Your task to perform on an android device: Open calendar and show me the fourth week of next month Image 0: 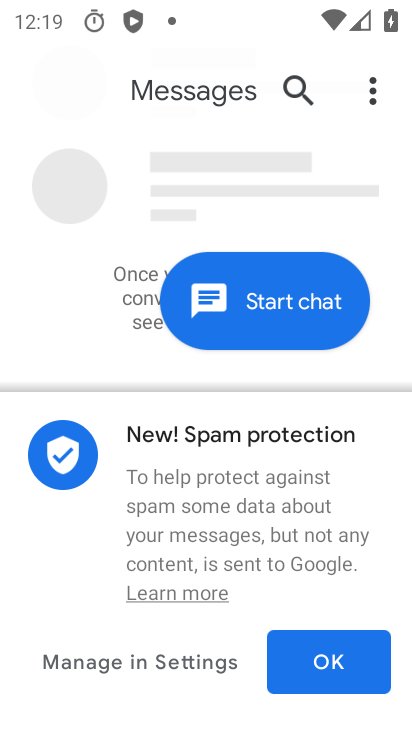
Step 0: press back button
Your task to perform on an android device: Open calendar and show me the fourth week of next month Image 1: 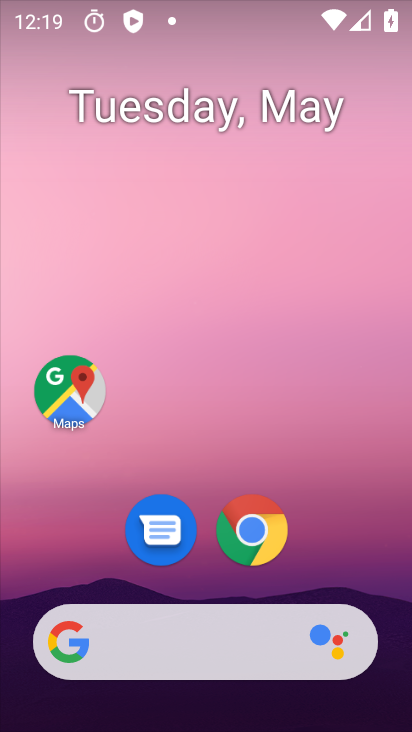
Step 1: drag from (393, 555) to (248, 21)
Your task to perform on an android device: Open calendar and show me the fourth week of next month Image 2: 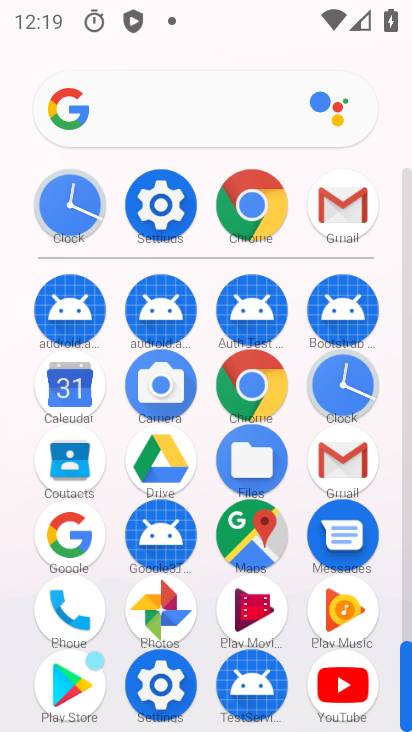
Step 2: drag from (7, 581) to (13, 300)
Your task to perform on an android device: Open calendar and show me the fourth week of next month Image 3: 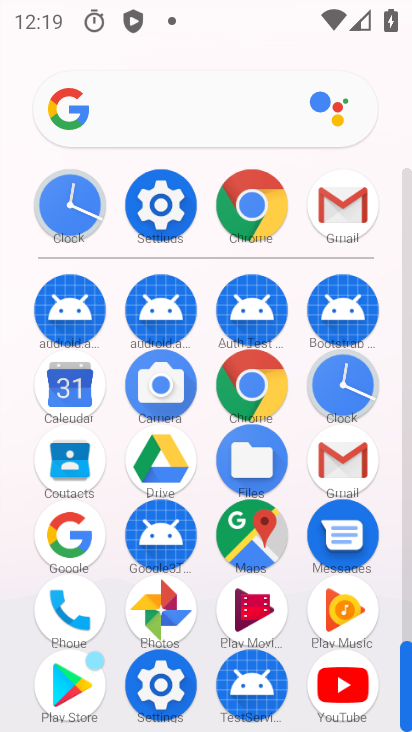
Step 3: drag from (8, 644) to (33, 280)
Your task to perform on an android device: Open calendar and show me the fourth week of next month Image 4: 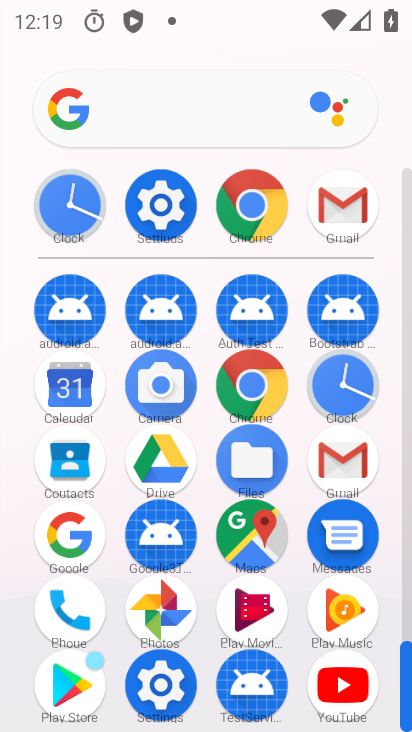
Step 4: click (71, 385)
Your task to perform on an android device: Open calendar and show me the fourth week of next month Image 5: 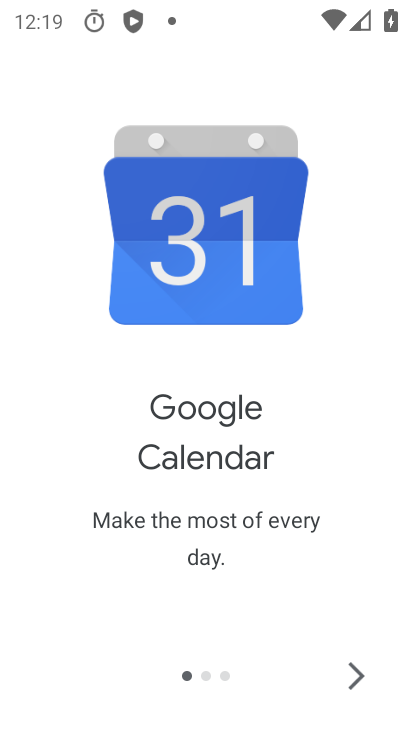
Step 5: click (359, 660)
Your task to perform on an android device: Open calendar and show me the fourth week of next month Image 6: 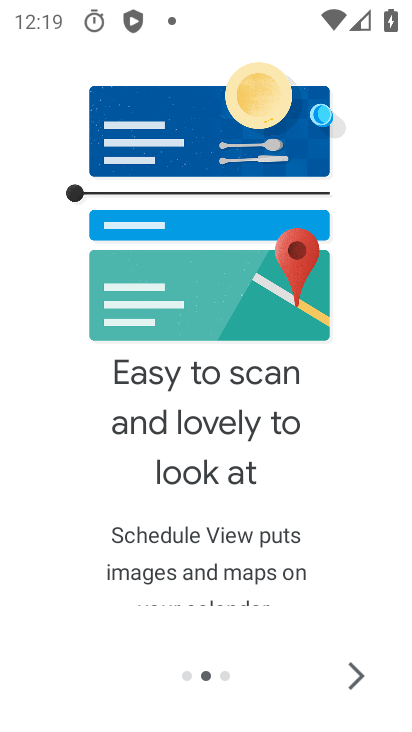
Step 6: click (358, 661)
Your task to perform on an android device: Open calendar and show me the fourth week of next month Image 7: 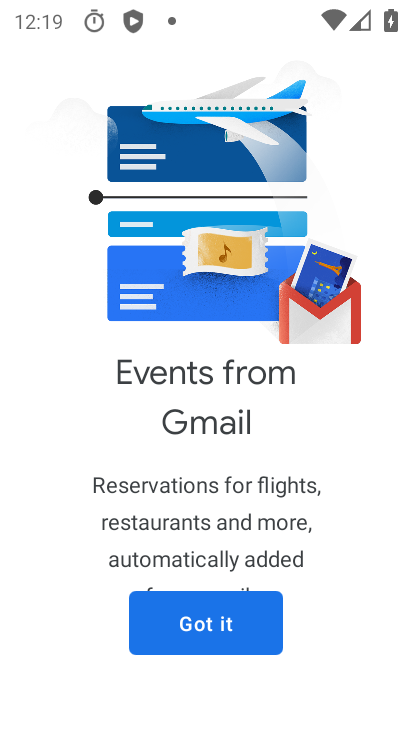
Step 7: click (256, 648)
Your task to perform on an android device: Open calendar and show me the fourth week of next month Image 8: 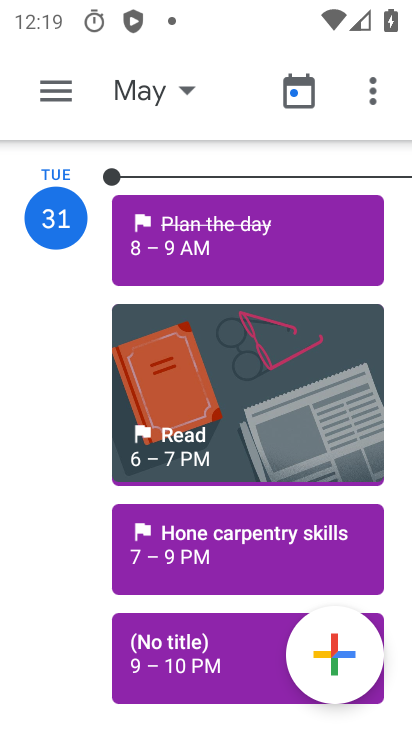
Step 8: click (149, 89)
Your task to perform on an android device: Open calendar and show me the fourth week of next month Image 9: 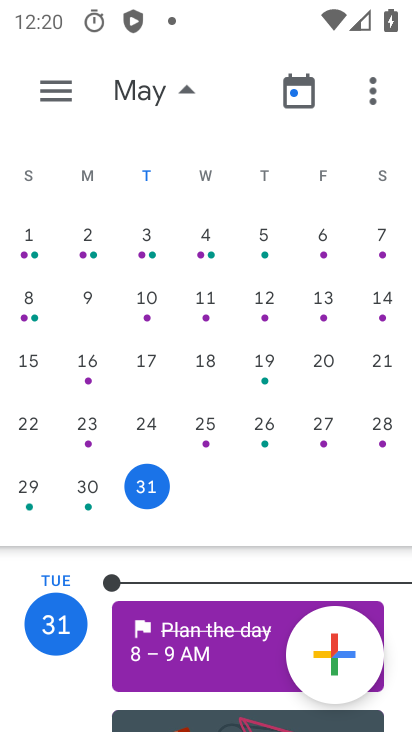
Step 9: drag from (396, 314) to (9, 299)
Your task to perform on an android device: Open calendar and show me the fourth week of next month Image 10: 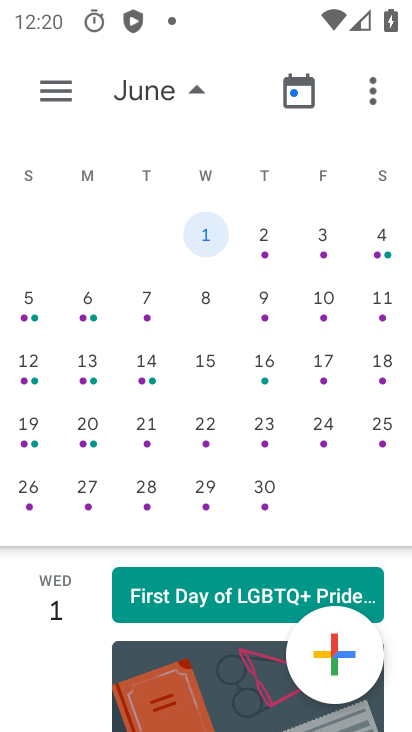
Step 10: click (23, 425)
Your task to perform on an android device: Open calendar and show me the fourth week of next month Image 11: 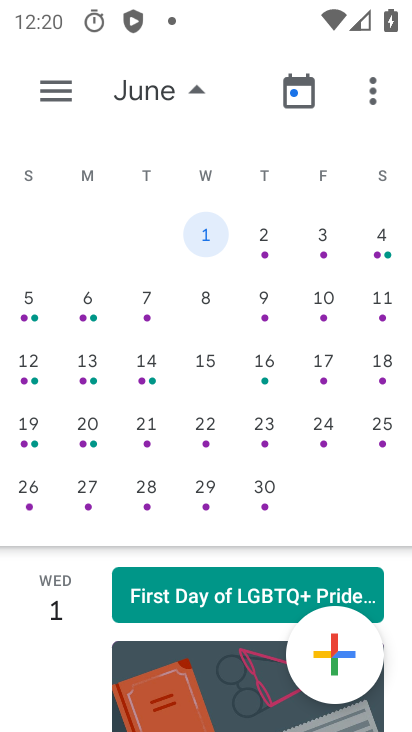
Step 11: click (27, 423)
Your task to perform on an android device: Open calendar and show me the fourth week of next month Image 12: 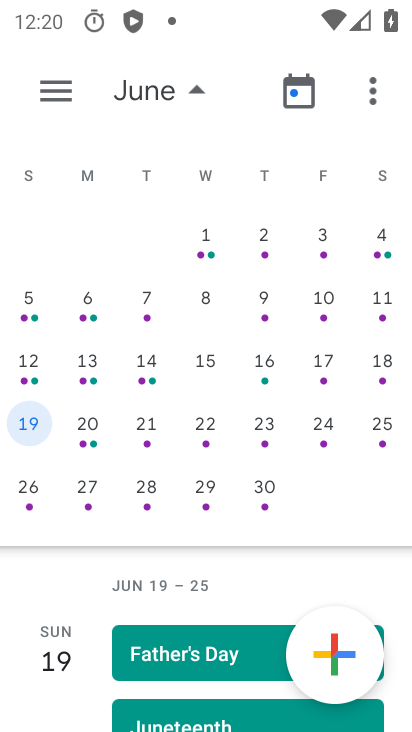
Step 12: click (52, 87)
Your task to perform on an android device: Open calendar and show me the fourth week of next month Image 13: 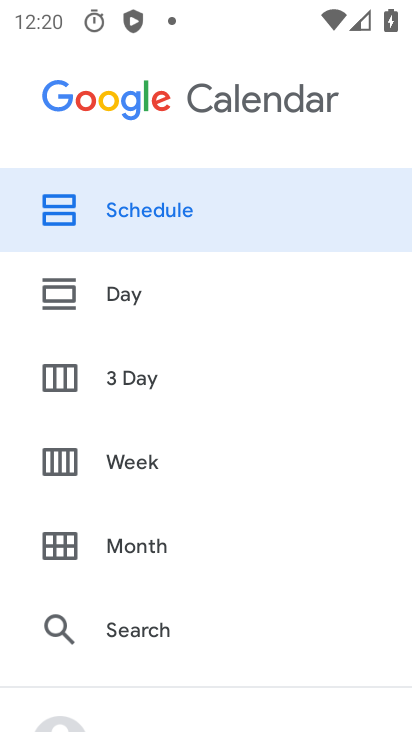
Step 13: click (152, 459)
Your task to perform on an android device: Open calendar and show me the fourth week of next month Image 14: 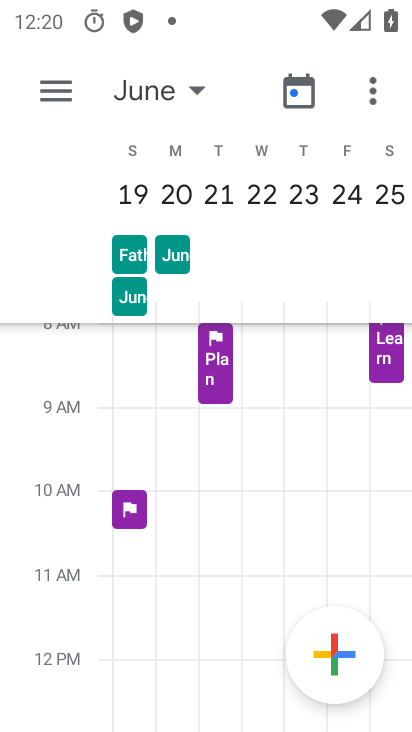
Step 14: task complete